Your task to perform on an android device: show emergency info Image 0: 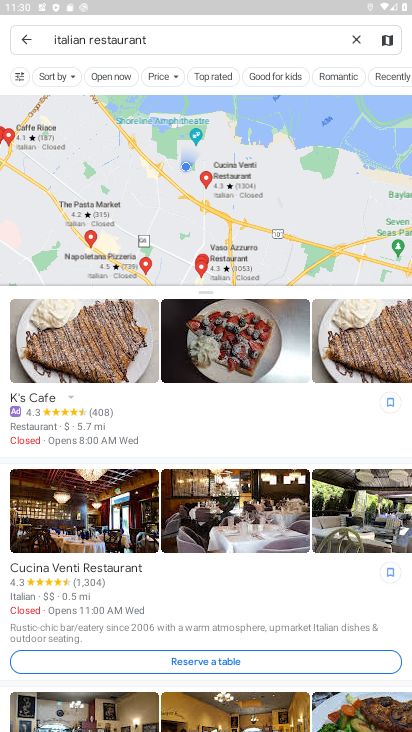
Step 0: press home button
Your task to perform on an android device: show emergency info Image 1: 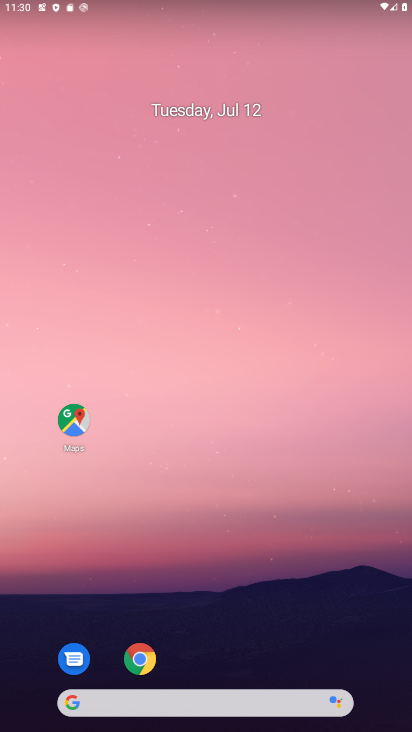
Step 1: drag from (194, 694) to (195, 100)
Your task to perform on an android device: show emergency info Image 2: 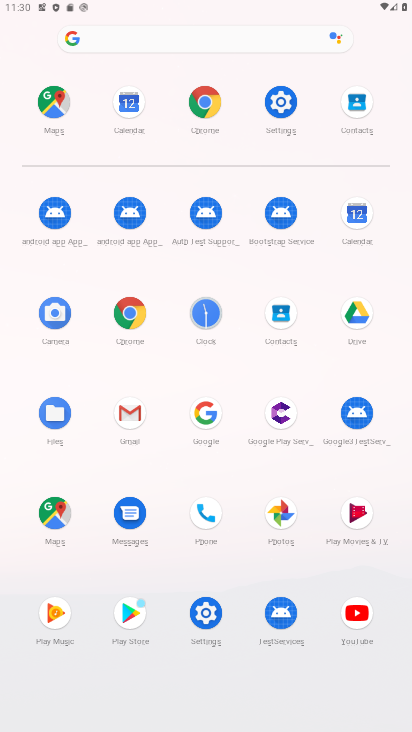
Step 2: click (286, 97)
Your task to perform on an android device: show emergency info Image 3: 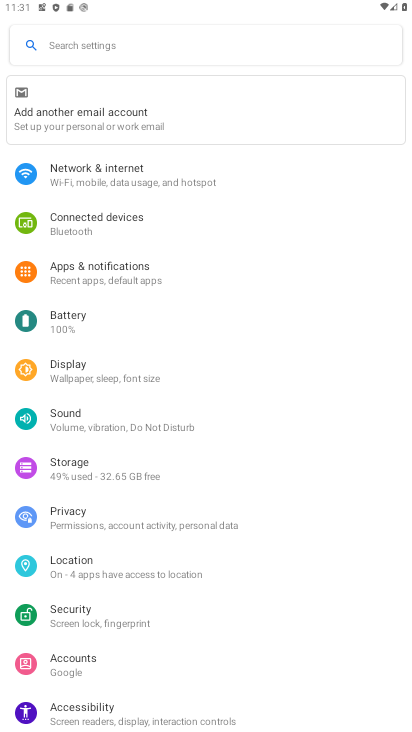
Step 3: drag from (146, 701) to (168, 284)
Your task to perform on an android device: show emergency info Image 4: 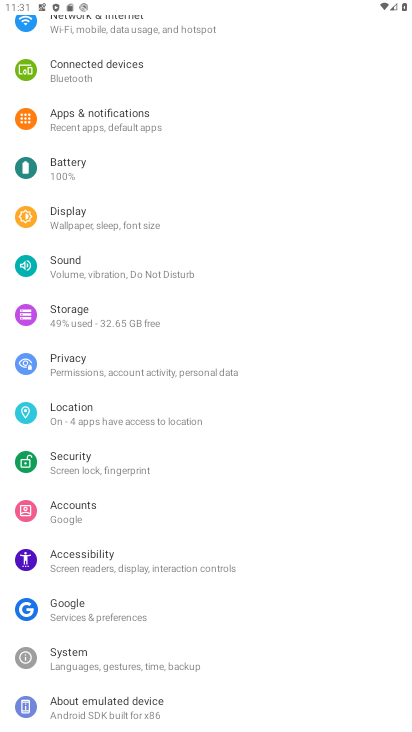
Step 4: click (89, 702)
Your task to perform on an android device: show emergency info Image 5: 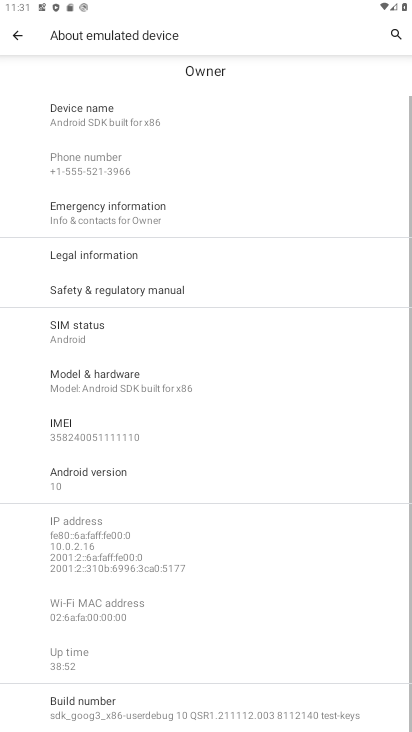
Step 5: click (108, 215)
Your task to perform on an android device: show emergency info Image 6: 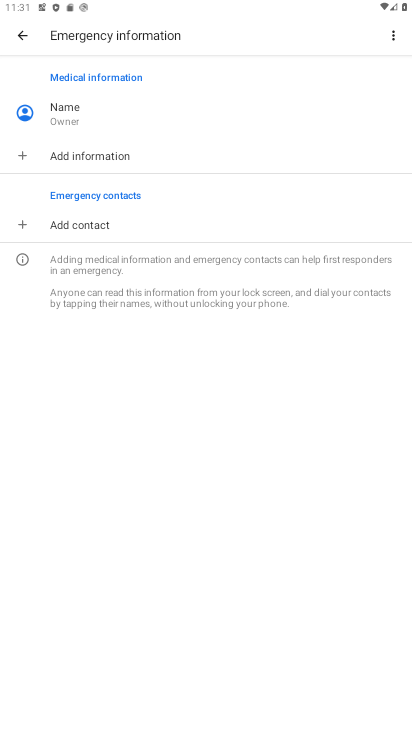
Step 6: task complete